Your task to perform on an android device: Open the phone app and click the voicemail tab. Image 0: 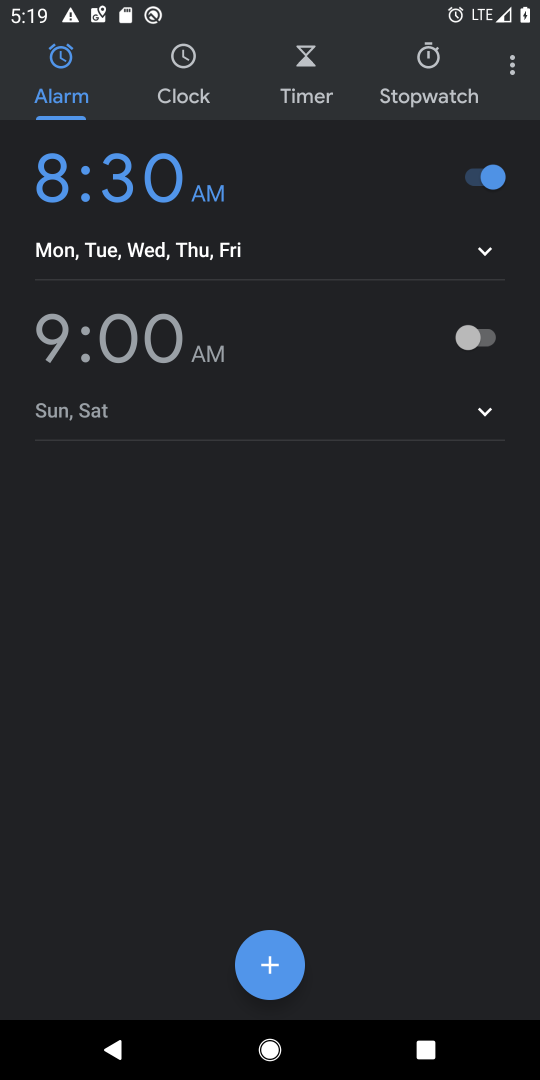
Step 0: press back button
Your task to perform on an android device: Open the phone app and click the voicemail tab. Image 1: 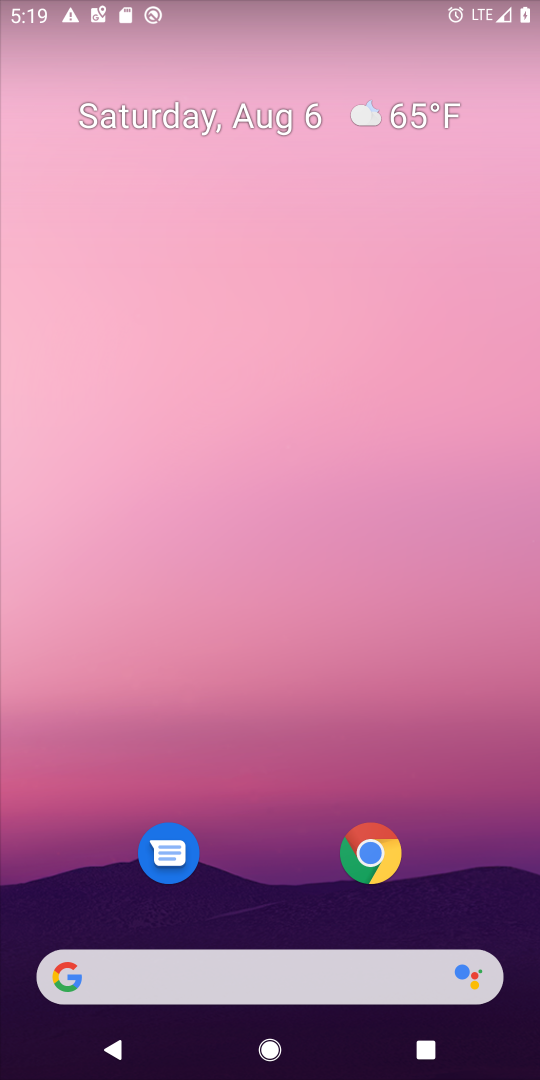
Step 1: drag from (252, 909) to (486, 45)
Your task to perform on an android device: Open the phone app and click the voicemail tab. Image 2: 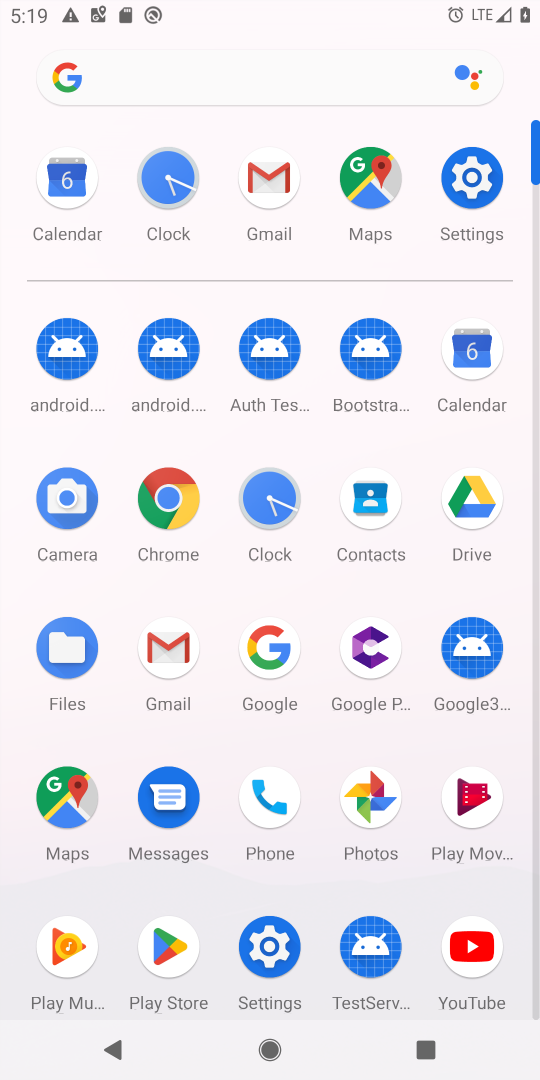
Step 2: click (271, 788)
Your task to perform on an android device: Open the phone app and click the voicemail tab. Image 3: 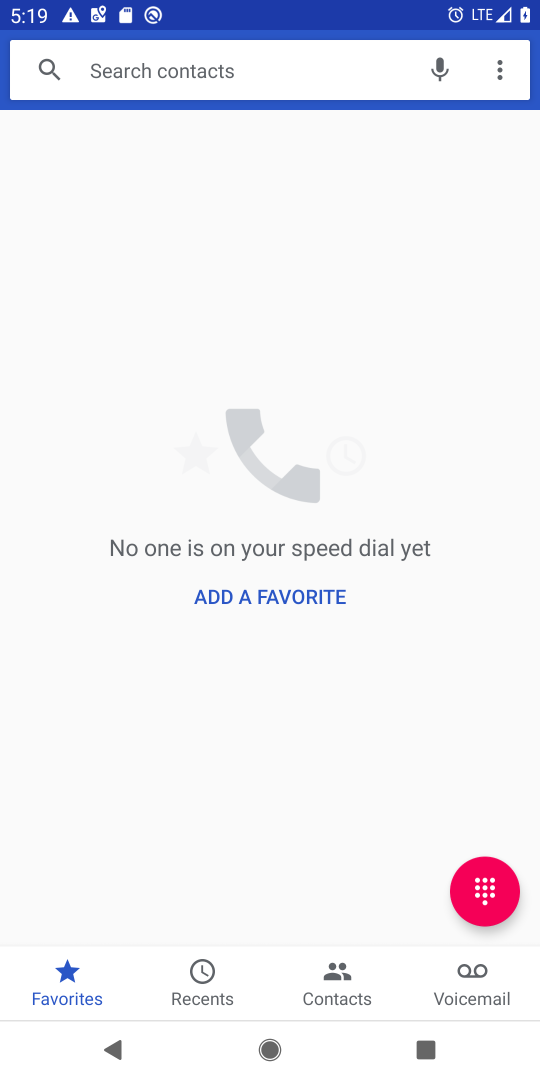
Step 3: click (487, 982)
Your task to perform on an android device: Open the phone app and click the voicemail tab. Image 4: 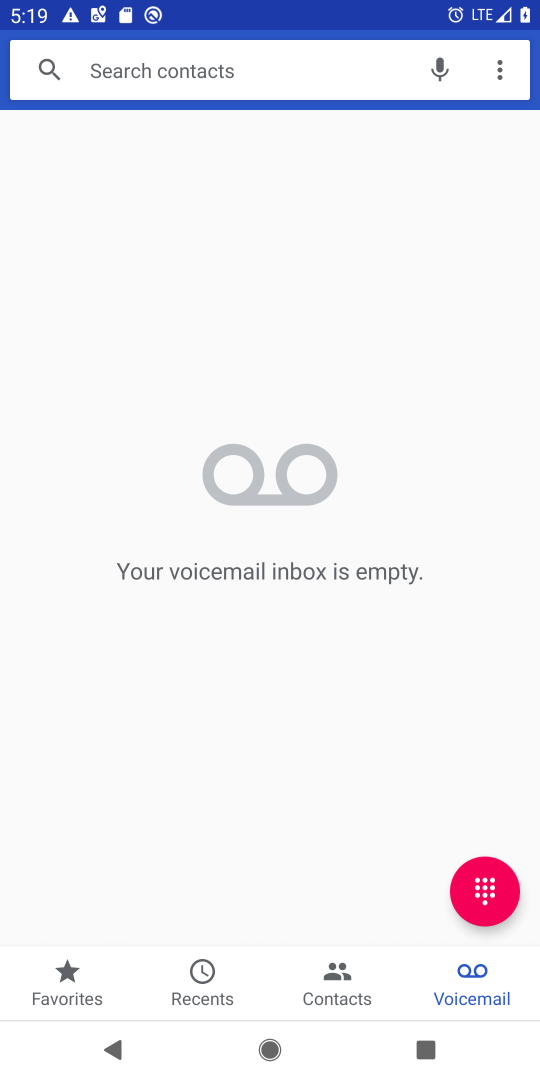
Step 4: task complete